Your task to perform on an android device: open wifi settings Image 0: 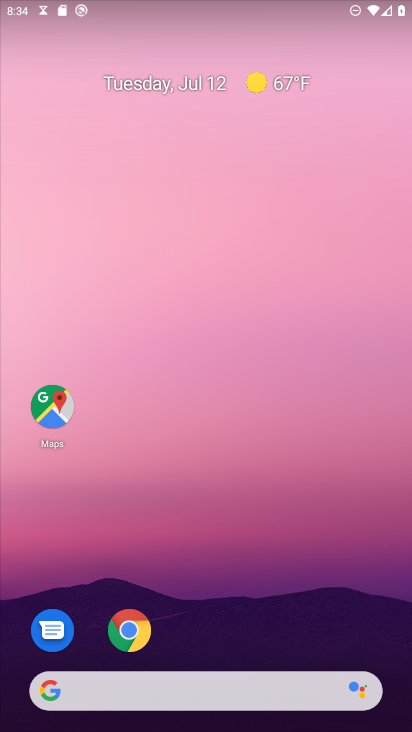
Step 0: click (410, 557)
Your task to perform on an android device: open wifi settings Image 1: 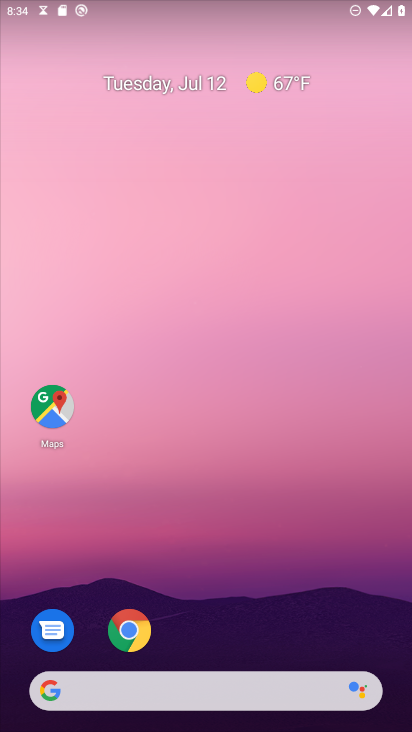
Step 1: drag from (286, 647) to (200, 245)
Your task to perform on an android device: open wifi settings Image 2: 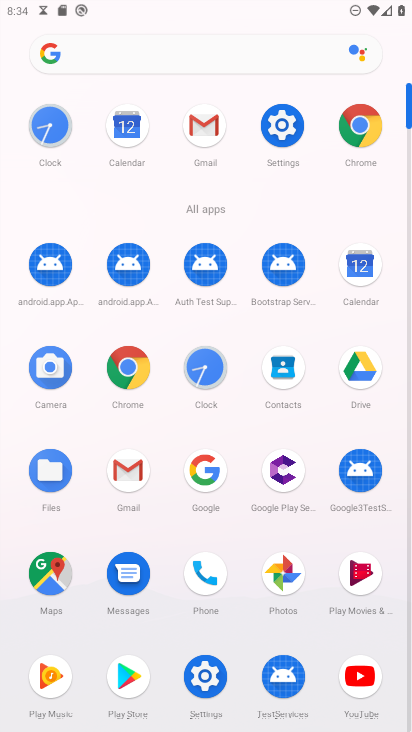
Step 2: click (285, 115)
Your task to perform on an android device: open wifi settings Image 3: 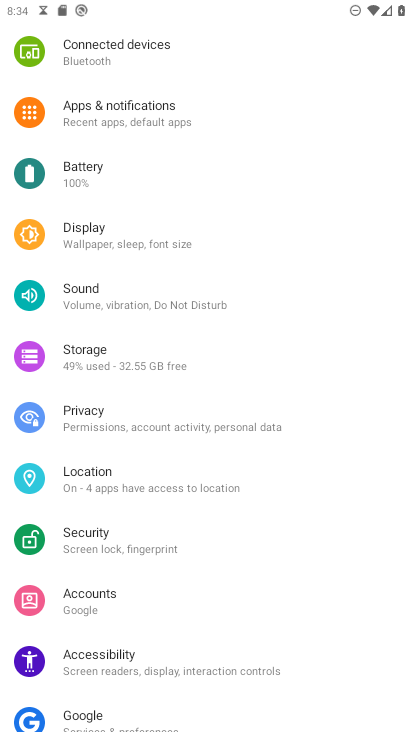
Step 3: drag from (223, 84) to (204, 476)
Your task to perform on an android device: open wifi settings Image 4: 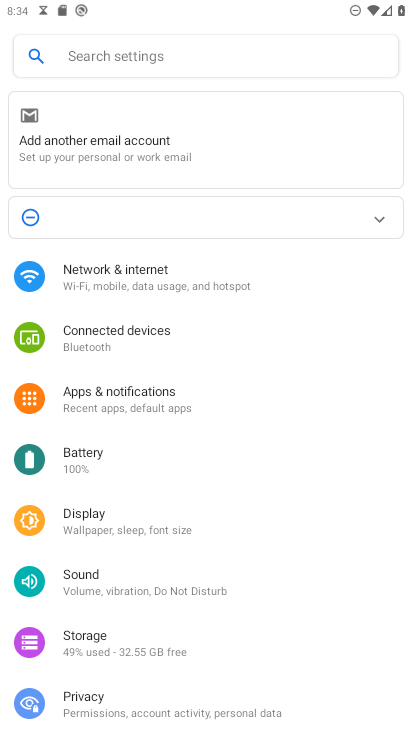
Step 4: click (201, 284)
Your task to perform on an android device: open wifi settings Image 5: 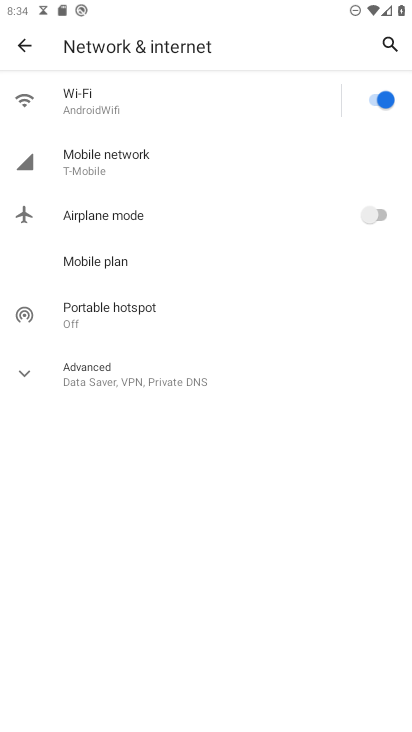
Step 5: click (216, 92)
Your task to perform on an android device: open wifi settings Image 6: 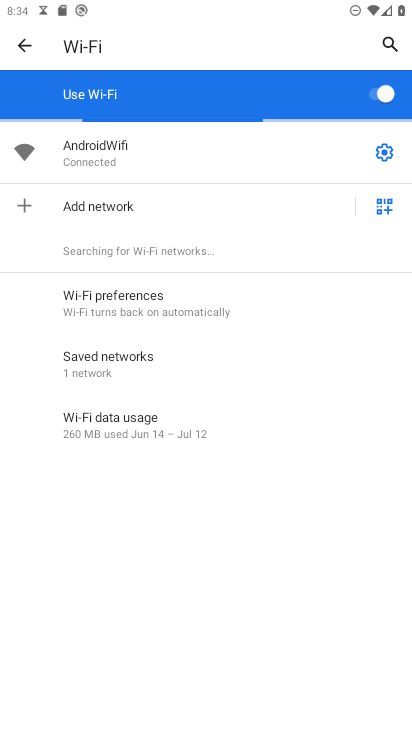
Step 6: task complete